Your task to perform on an android device: change the clock display to digital Image 0: 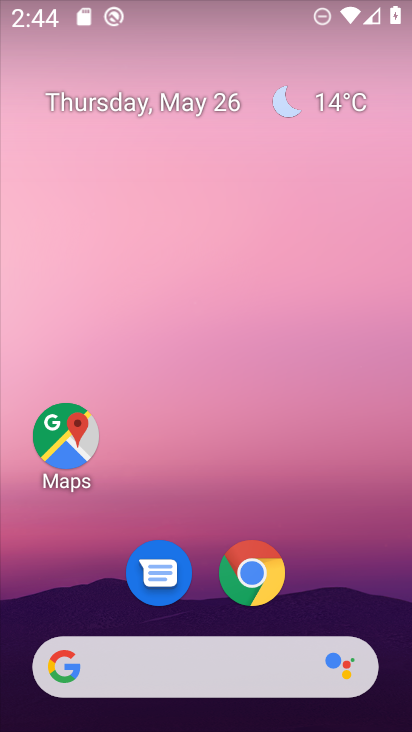
Step 0: click (237, 28)
Your task to perform on an android device: change the clock display to digital Image 1: 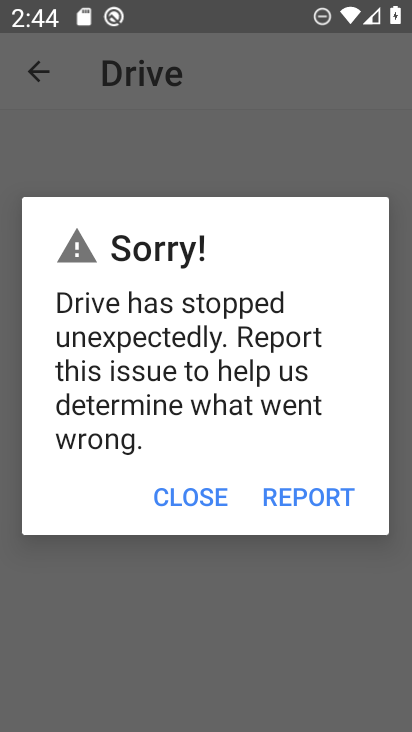
Step 1: press back button
Your task to perform on an android device: change the clock display to digital Image 2: 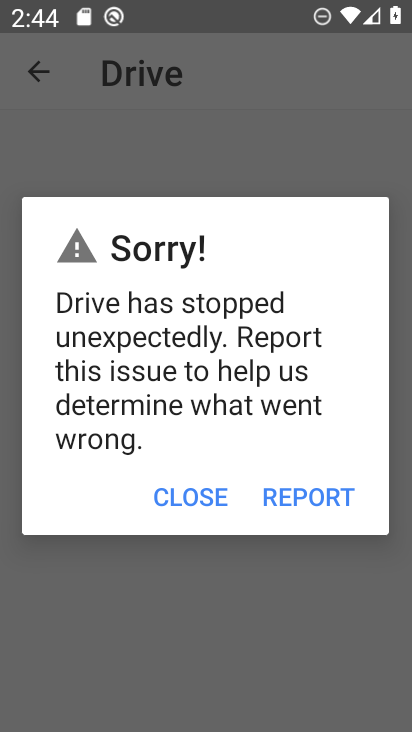
Step 2: press back button
Your task to perform on an android device: change the clock display to digital Image 3: 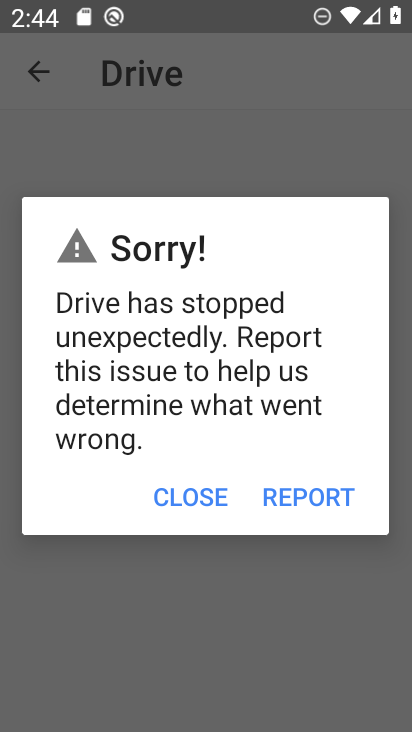
Step 3: press home button
Your task to perform on an android device: change the clock display to digital Image 4: 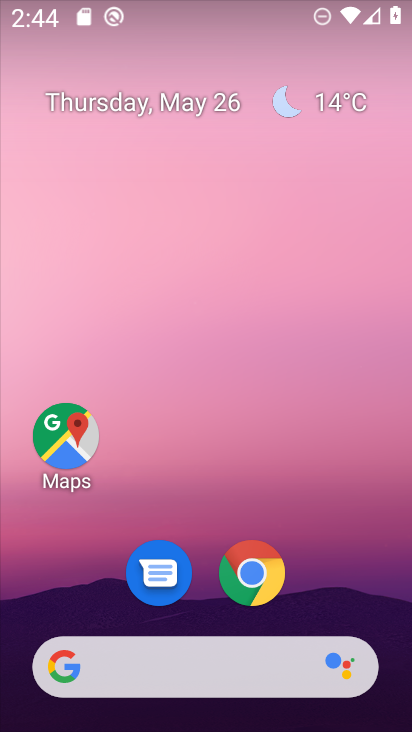
Step 4: drag from (302, 396) to (241, 33)
Your task to perform on an android device: change the clock display to digital Image 5: 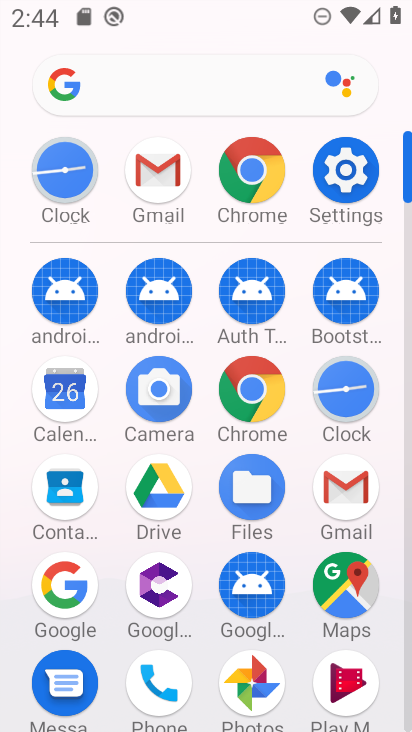
Step 5: click (343, 384)
Your task to perform on an android device: change the clock display to digital Image 6: 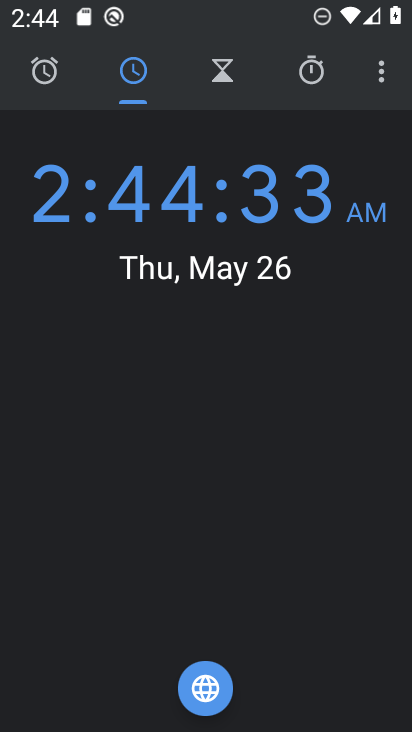
Step 6: task complete